Your task to perform on an android device: Open Reddit.com Image 0: 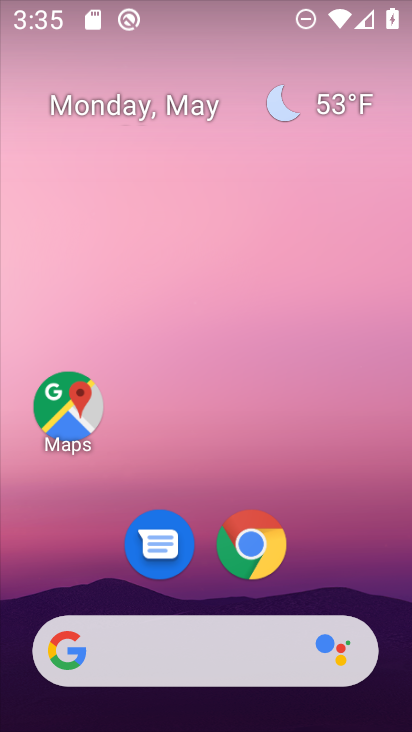
Step 0: click (234, 555)
Your task to perform on an android device: Open Reddit.com Image 1: 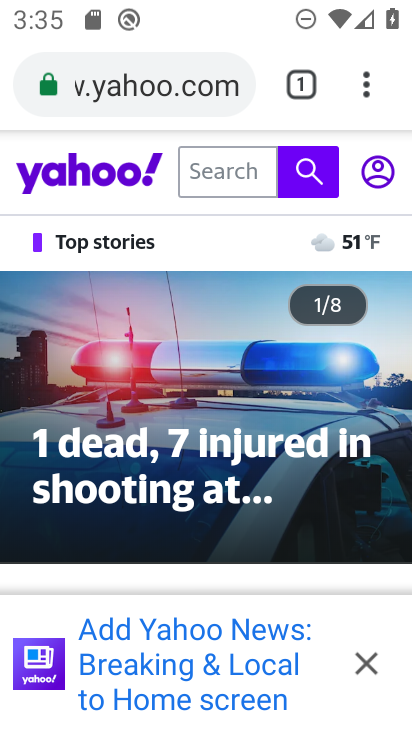
Step 1: click (301, 90)
Your task to perform on an android device: Open Reddit.com Image 2: 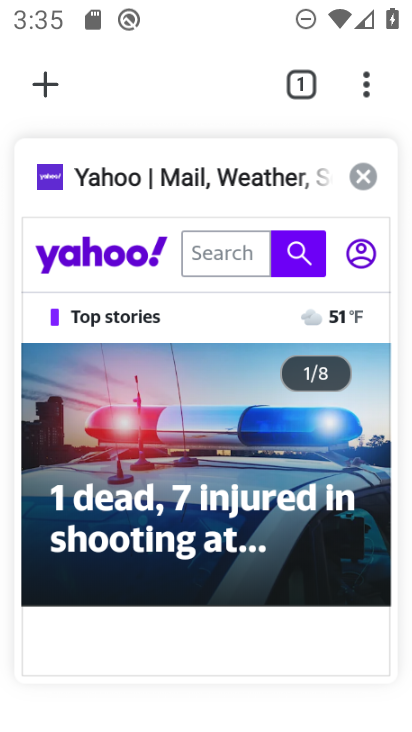
Step 2: click (366, 181)
Your task to perform on an android device: Open Reddit.com Image 3: 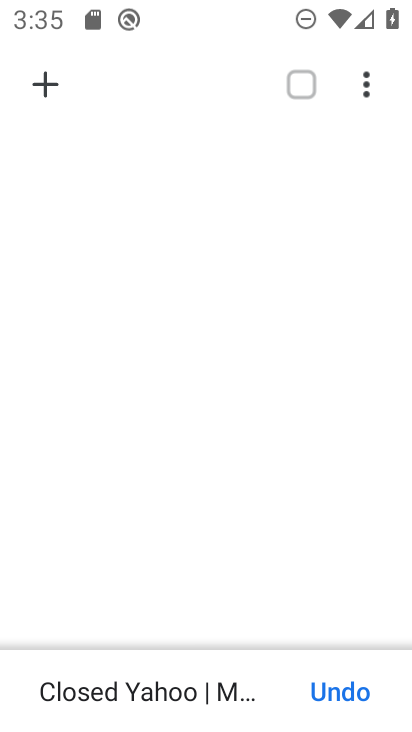
Step 3: click (50, 86)
Your task to perform on an android device: Open Reddit.com Image 4: 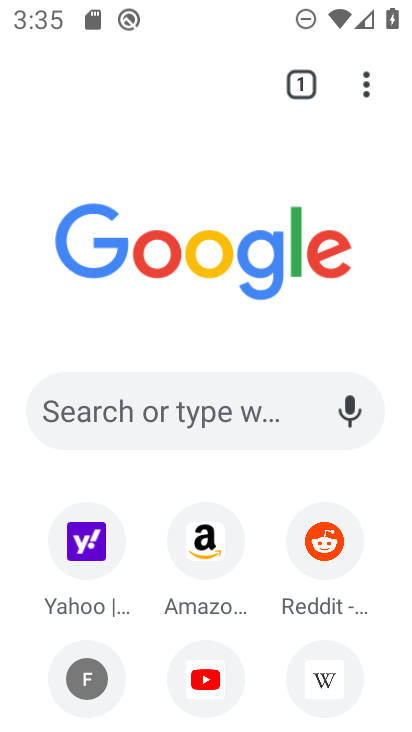
Step 4: click (180, 413)
Your task to perform on an android device: Open Reddit.com Image 5: 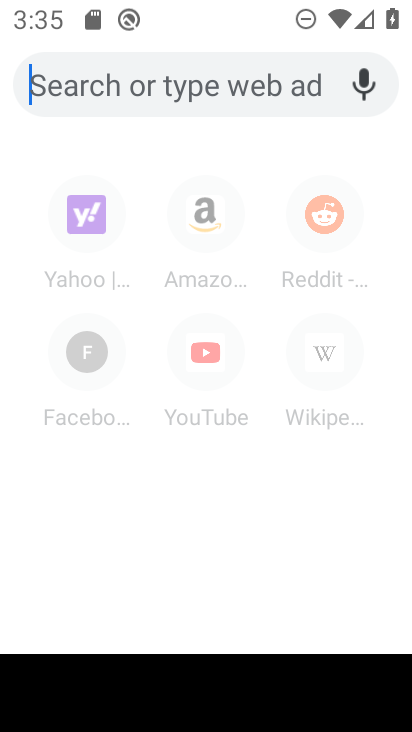
Step 5: type "Reddit.com"
Your task to perform on an android device: Open Reddit.com Image 6: 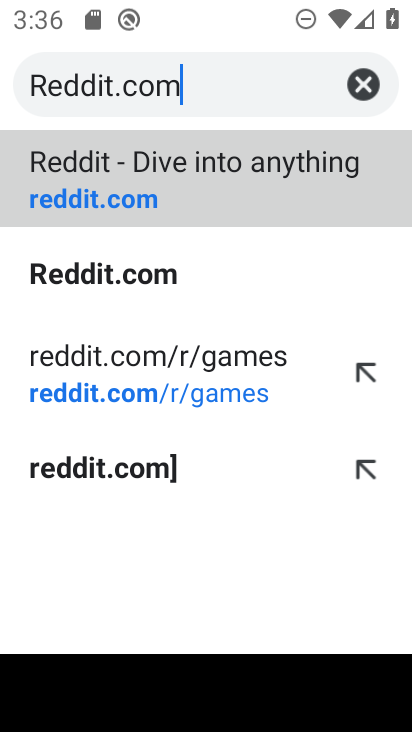
Step 6: click (90, 176)
Your task to perform on an android device: Open Reddit.com Image 7: 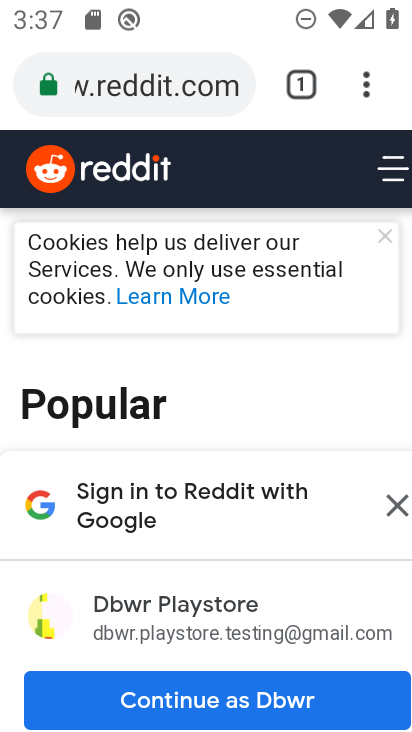
Step 7: task complete